Your task to perform on an android device: clear all cookies in the chrome app Image 0: 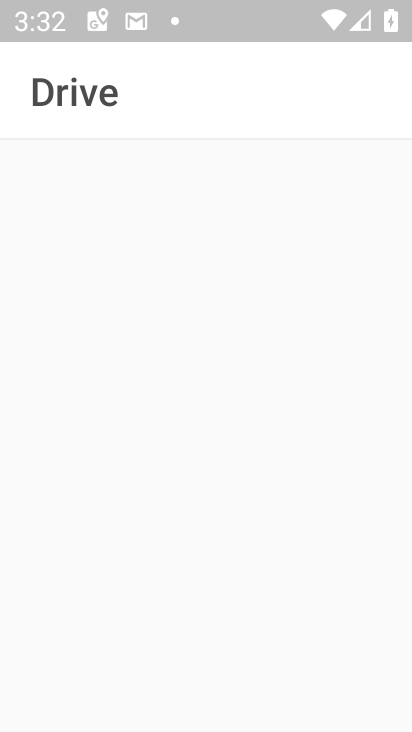
Step 0: press home button
Your task to perform on an android device: clear all cookies in the chrome app Image 1: 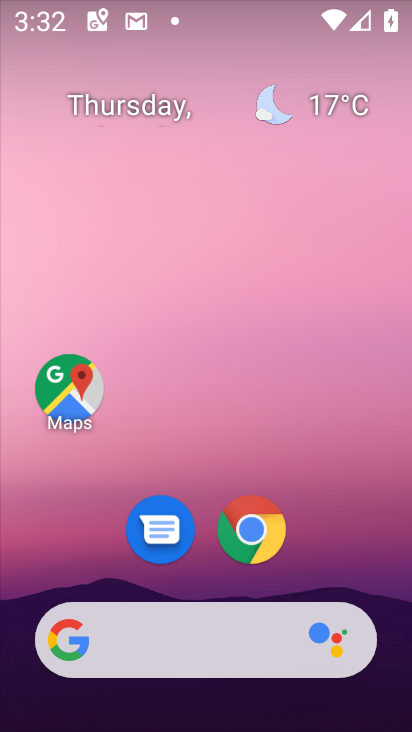
Step 1: click (245, 537)
Your task to perform on an android device: clear all cookies in the chrome app Image 2: 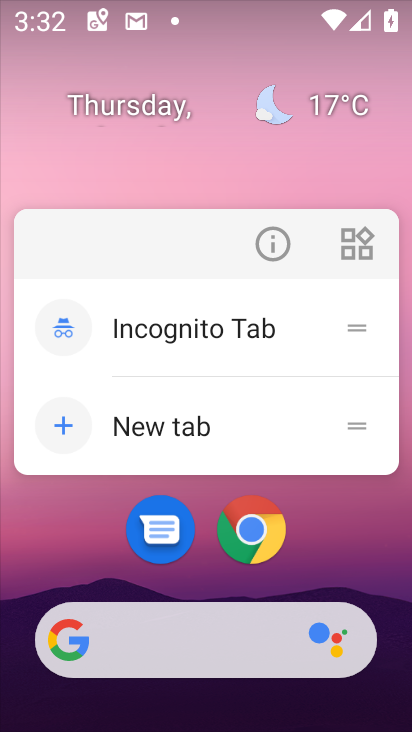
Step 2: click (245, 537)
Your task to perform on an android device: clear all cookies in the chrome app Image 3: 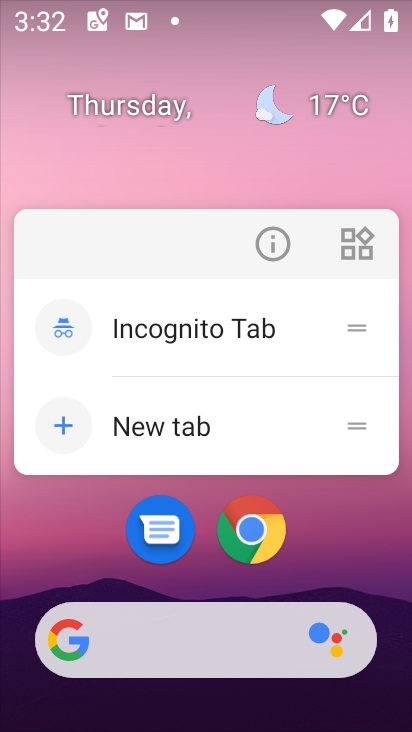
Step 3: click (245, 537)
Your task to perform on an android device: clear all cookies in the chrome app Image 4: 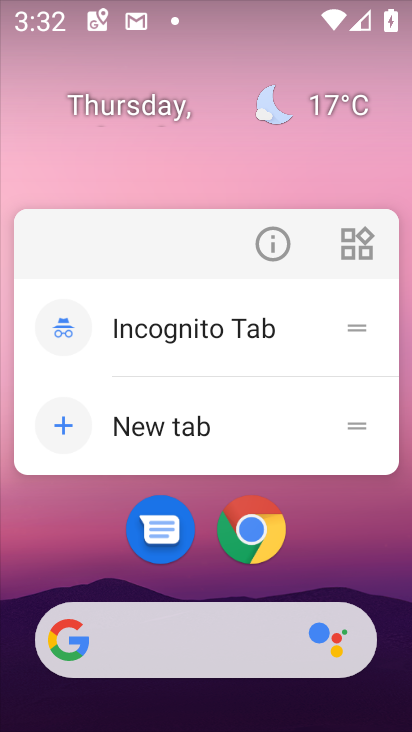
Step 4: click (253, 532)
Your task to perform on an android device: clear all cookies in the chrome app Image 5: 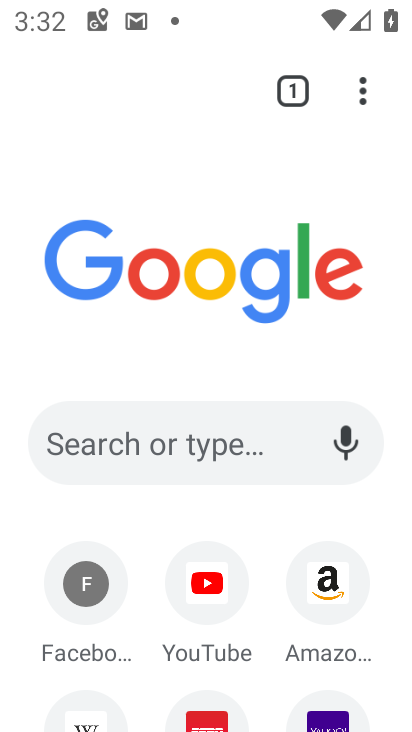
Step 5: click (358, 92)
Your task to perform on an android device: clear all cookies in the chrome app Image 6: 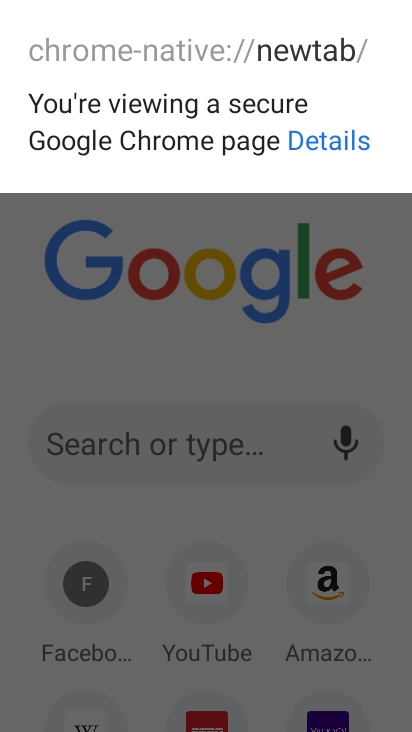
Step 6: click (369, 204)
Your task to perform on an android device: clear all cookies in the chrome app Image 7: 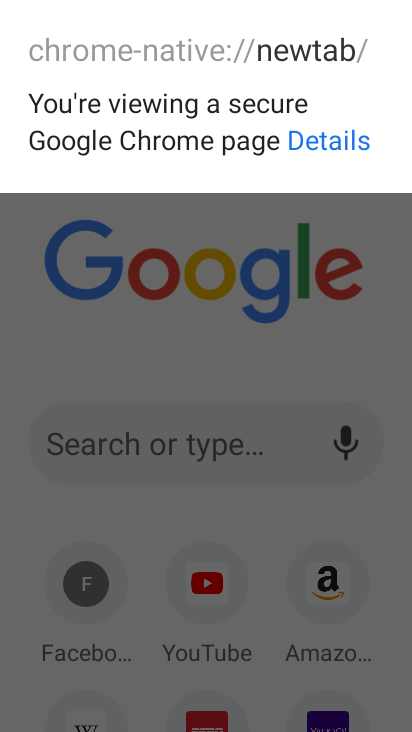
Step 7: click (369, 200)
Your task to perform on an android device: clear all cookies in the chrome app Image 8: 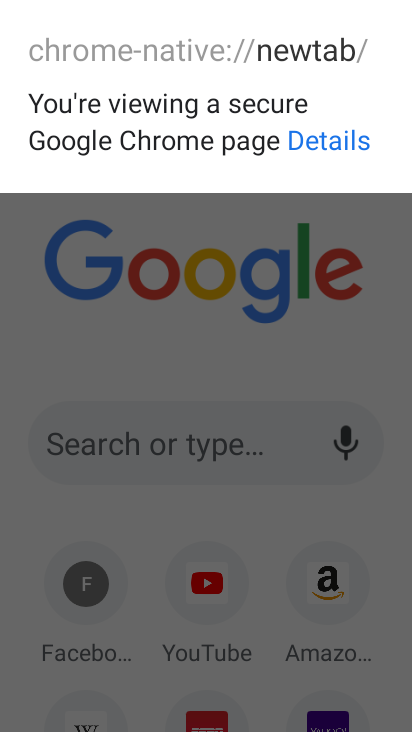
Step 8: click (368, 196)
Your task to perform on an android device: clear all cookies in the chrome app Image 9: 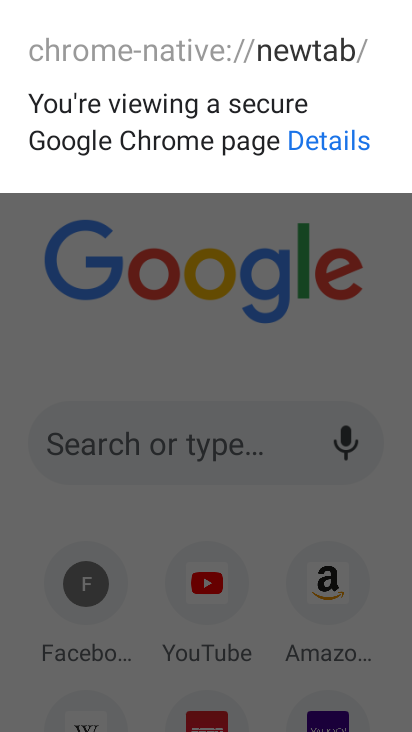
Step 9: click (383, 323)
Your task to perform on an android device: clear all cookies in the chrome app Image 10: 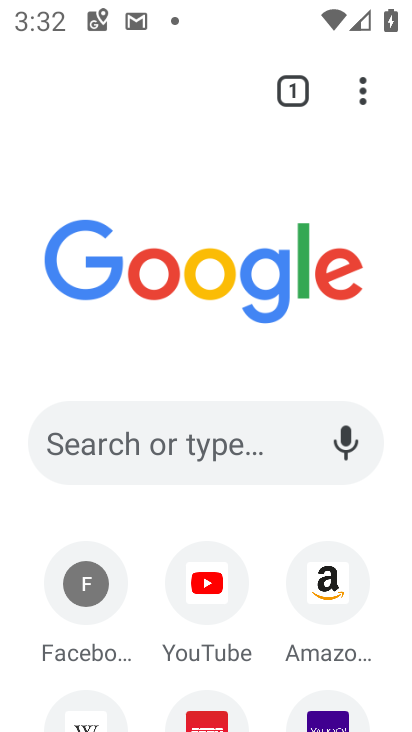
Step 10: click (372, 96)
Your task to perform on an android device: clear all cookies in the chrome app Image 11: 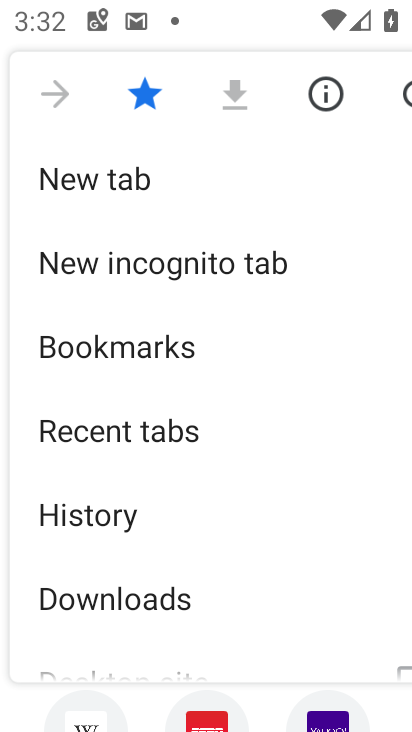
Step 11: drag from (117, 623) to (114, 283)
Your task to perform on an android device: clear all cookies in the chrome app Image 12: 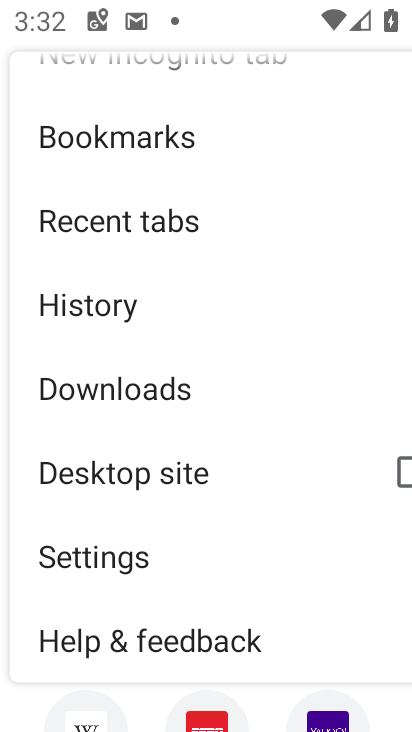
Step 12: drag from (110, 140) to (116, 447)
Your task to perform on an android device: clear all cookies in the chrome app Image 13: 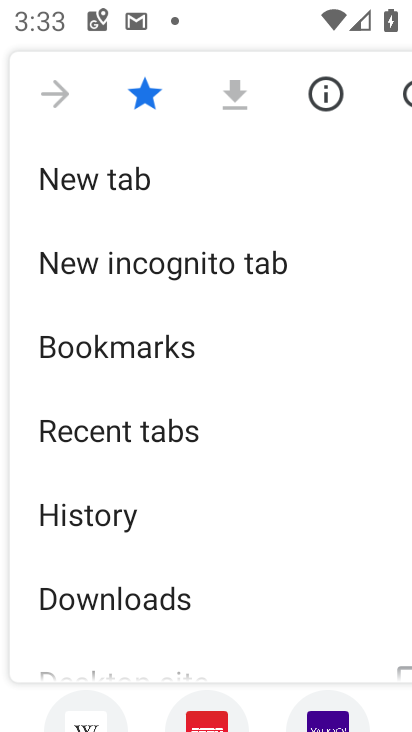
Step 13: drag from (99, 601) to (92, 197)
Your task to perform on an android device: clear all cookies in the chrome app Image 14: 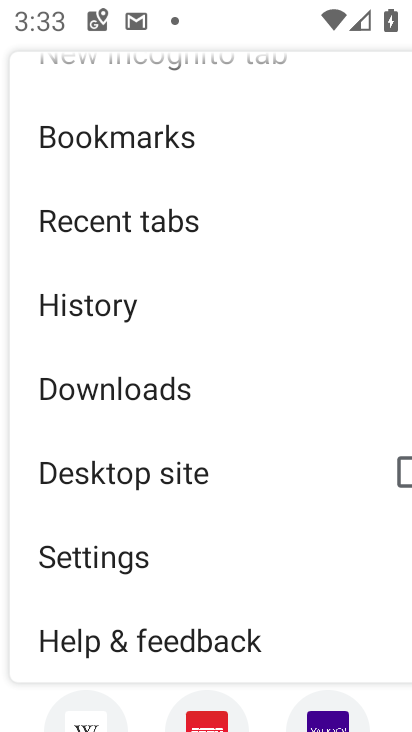
Step 14: click (89, 306)
Your task to perform on an android device: clear all cookies in the chrome app Image 15: 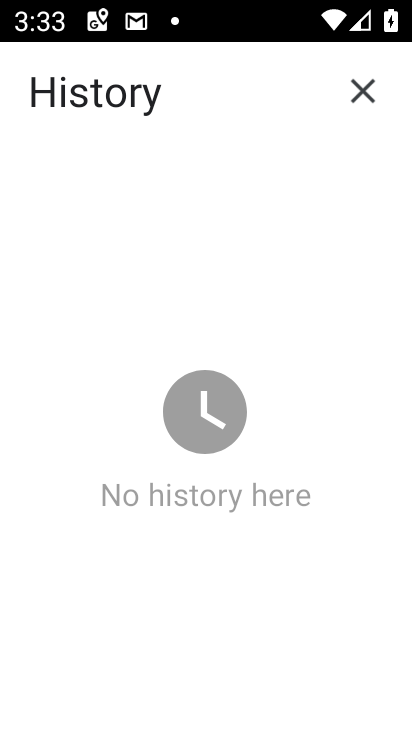
Step 15: task complete